Your task to perform on an android device: turn on wifi Image 0: 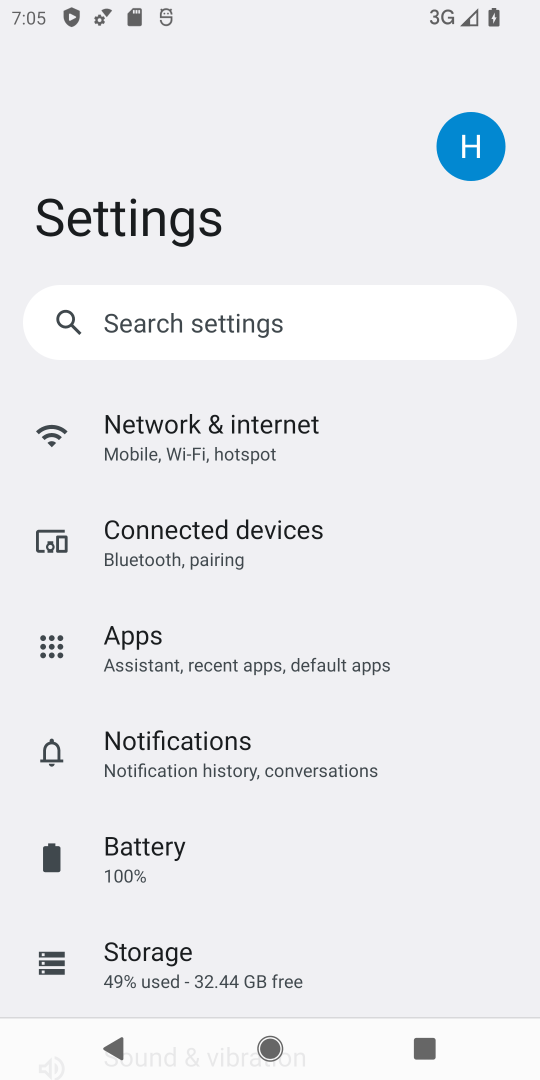
Step 0: click (237, 444)
Your task to perform on an android device: turn on wifi Image 1: 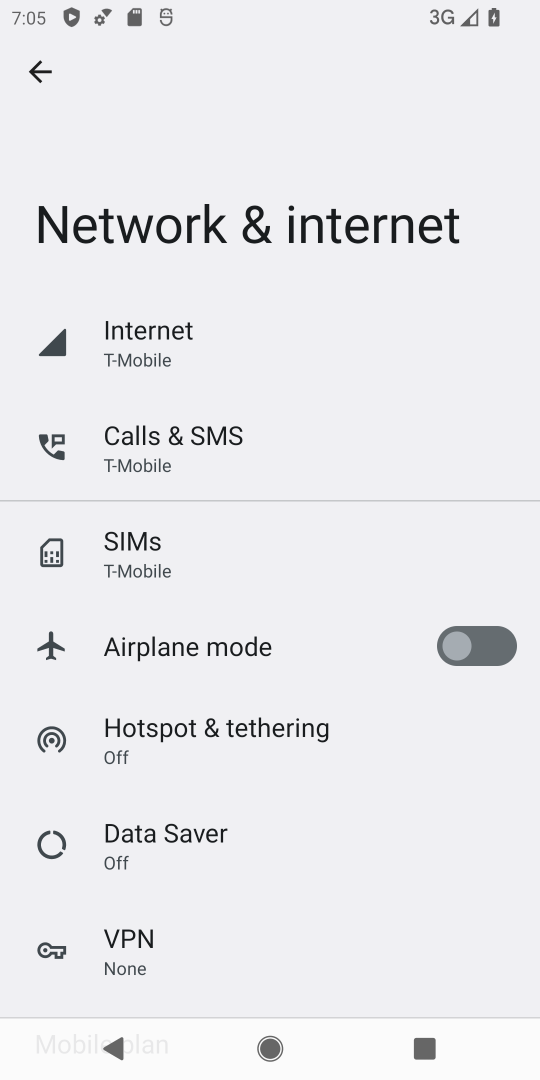
Step 1: click (174, 337)
Your task to perform on an android device: turn on wifi Image 2: 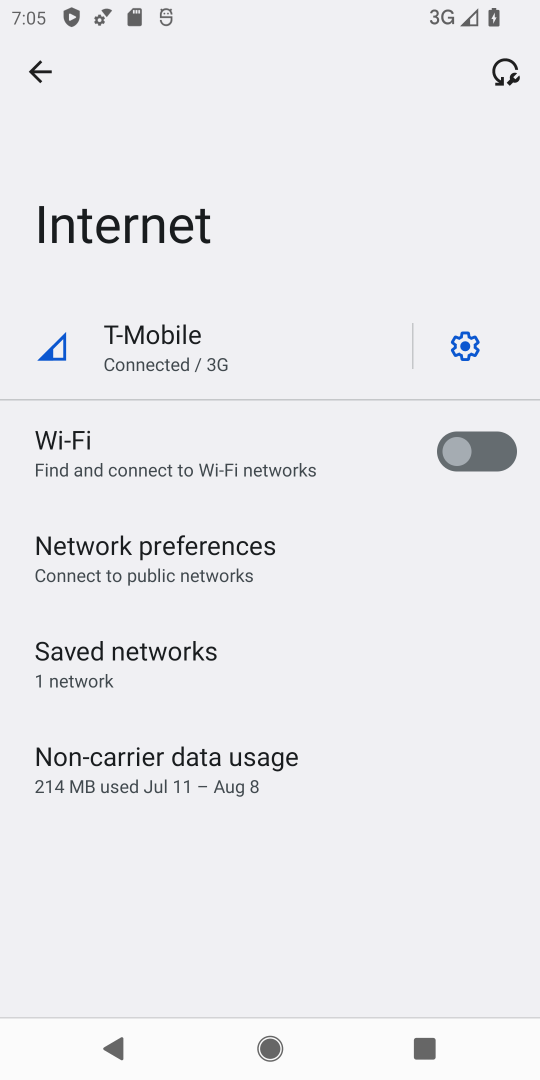
Step 2: click (494, 449)
Your task to perform on an android device: turn on wifi Image 3: 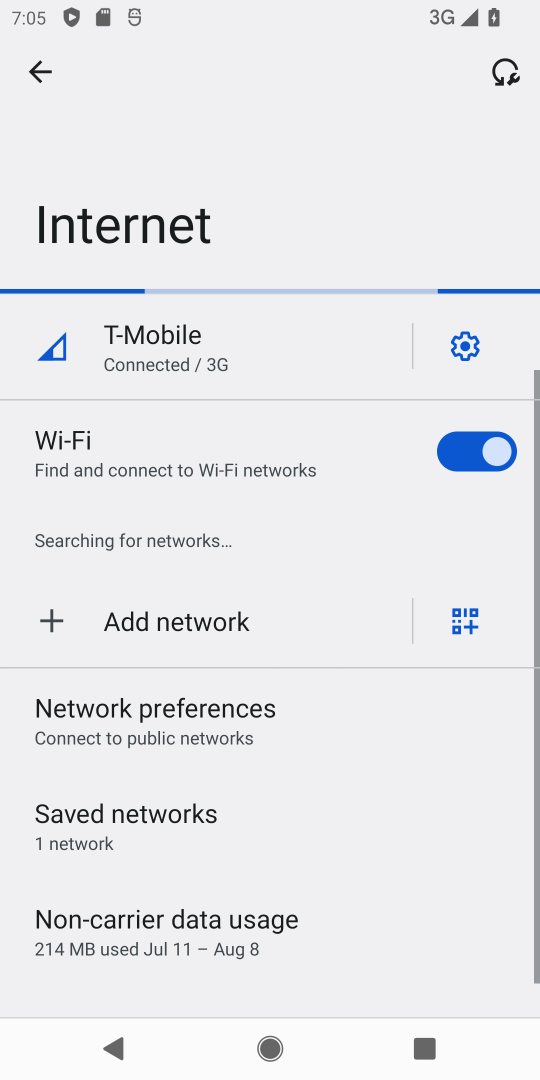
Step 3: task complete